Your task to perform on an android device: change notification settings in the gmail app Image 0: 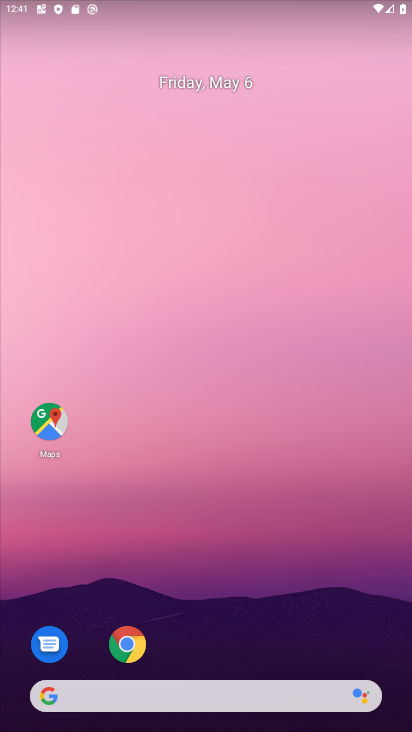
Step 0: drag from (297, 728) to (207, 59)
Your task to perform on an android device: change notification settings in the gmail app Image 1: 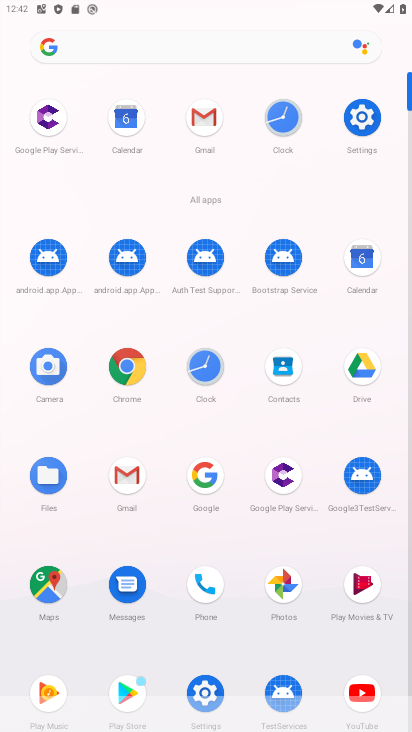
Step 1: click (126, 469)
Your task to perform on an android device: change notification settings in the gmail app Image 2: 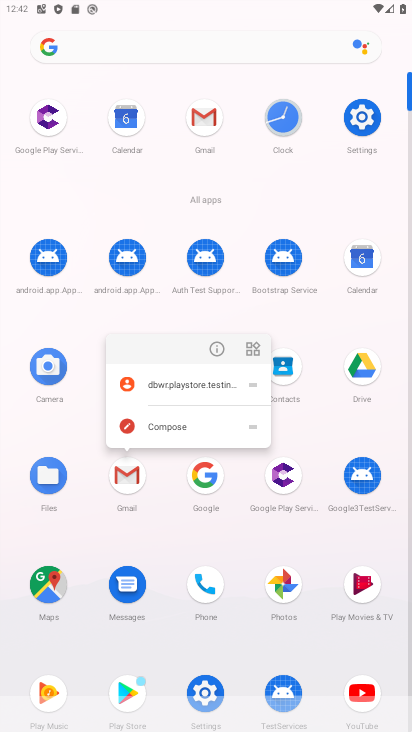
Step 2: click (218, 349)
Your task to perform on an android device: change notification settings in the gmail app Image 3: 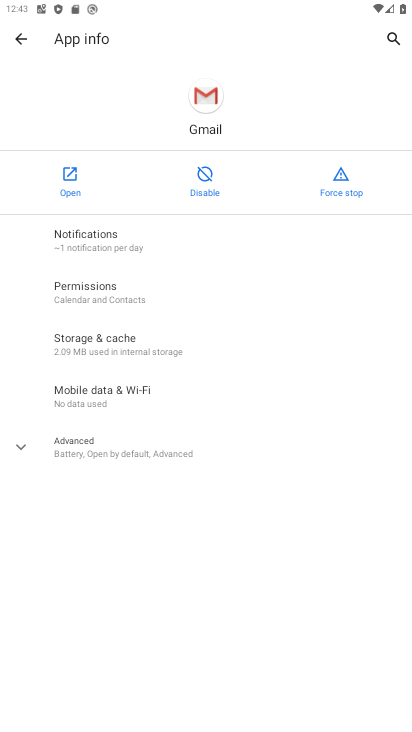
Step 3: click (129, 246)
Your task to perform on an android device: change notification settings in the gmail app Image 4: 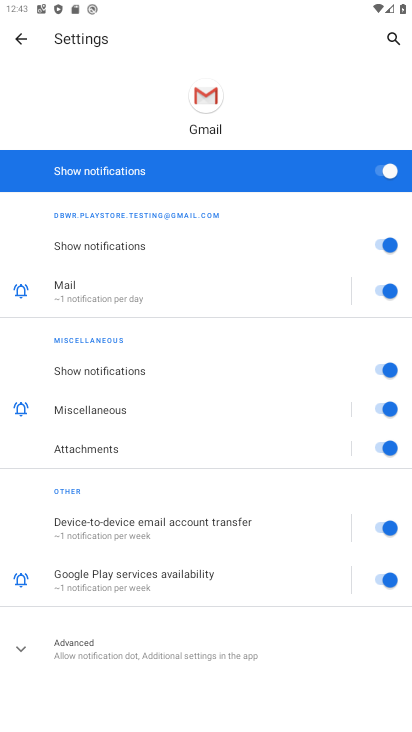
Step 4: click (391, 174)
Your task to perform on an android device: change notification settings in the gmail app Image 5: 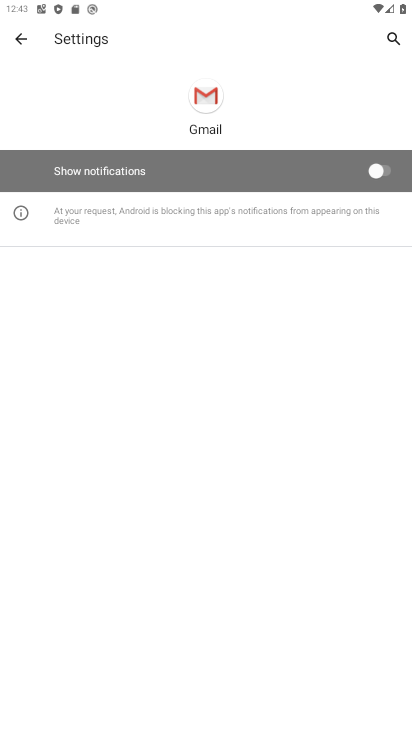
Step 5: task complete